Your task to perform on an android device: toggle data saver in the chrome app Image 0: 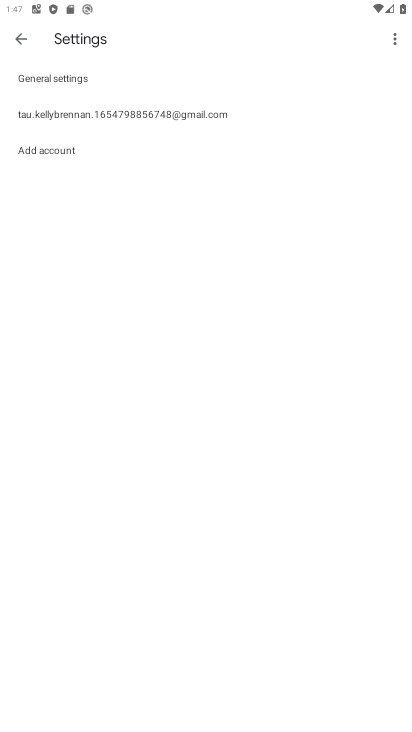
Step 0: press home button
Your task to perform on an android device: toggle data saver in the chrome app Image 1: 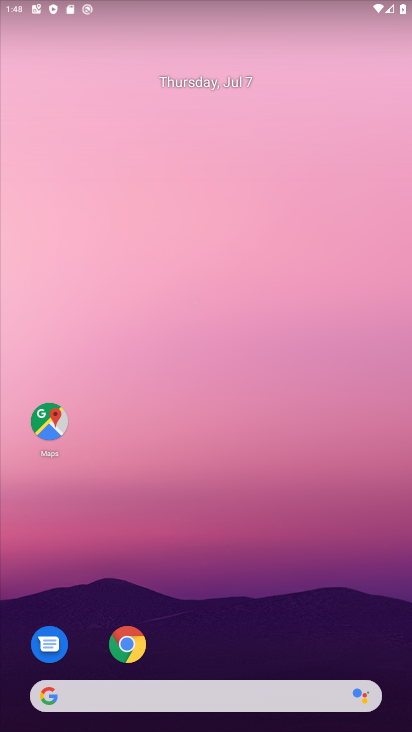
Step 1: click (125, 643)
Your task to perform on an android device: toggle data saver in the chrome app Image 2: 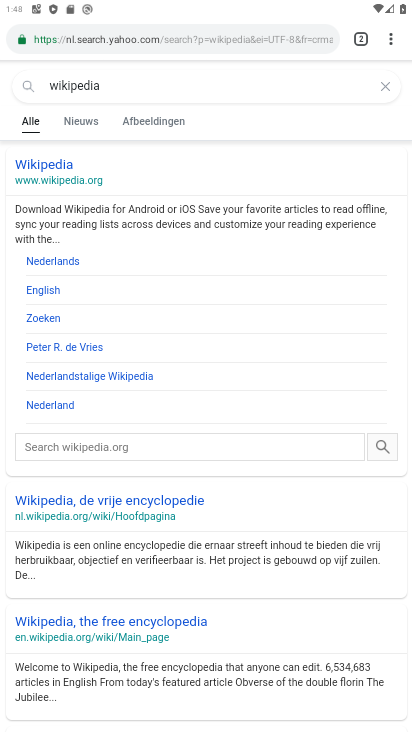
Step 2: drag from (394, 37) to (258, 474)
Your task to perform on an android device: toggle data saver in the chrome app Image 3: 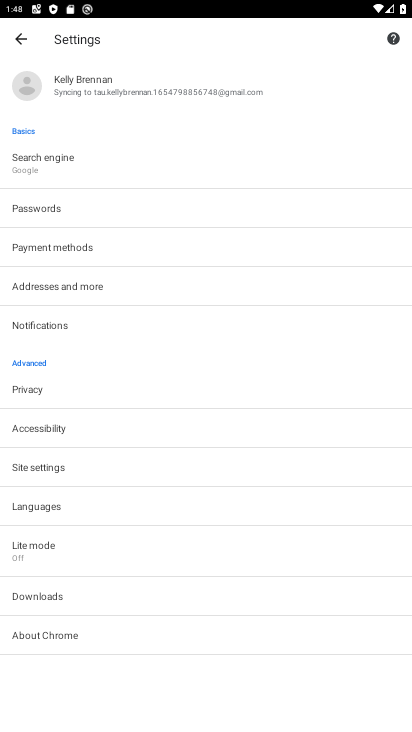
Step 3: click (145, 547)
Your task to perform on an android device: toggle data saver in the chrome app Image 4: 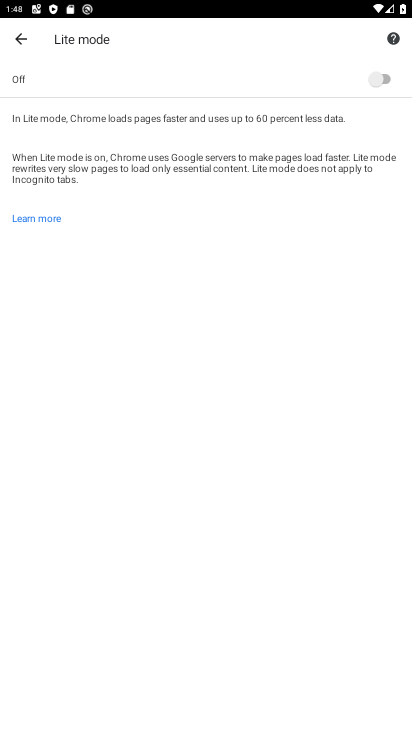
Step 4: click (395, 74)
Your task to perform on an android device: toggle data saver in the chrome app Image 5: 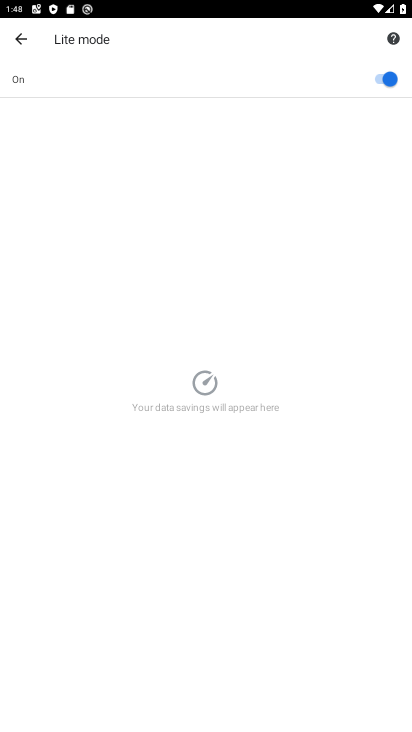
Step 5: task complete